Your task to perform on an android device: What's on my calendar tomorrow? Image 0: 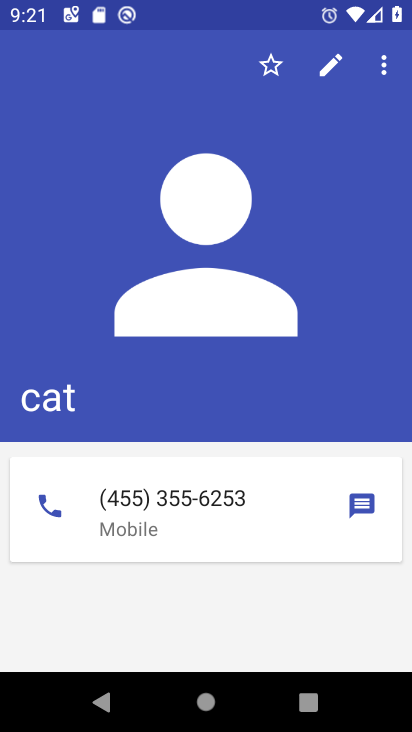
Step 0: press home button
Your task to perform on an android device: What's on my calendar tomorrow? Image 1: 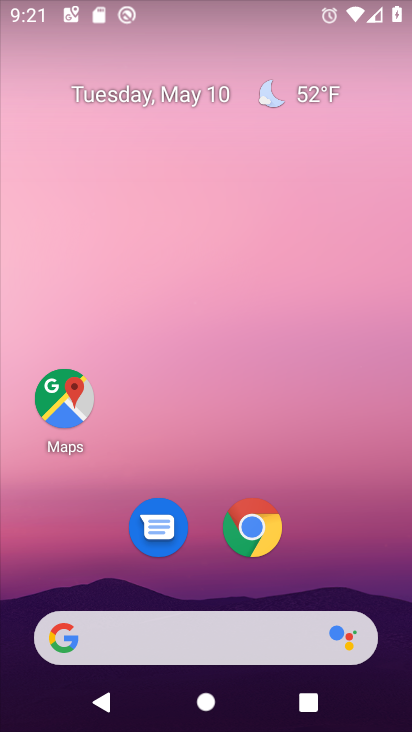
Step 1: drag from (363, 576) to (187, 129)
Your task to perform on an android device: What's on my calendar tomorrow? Image 2: 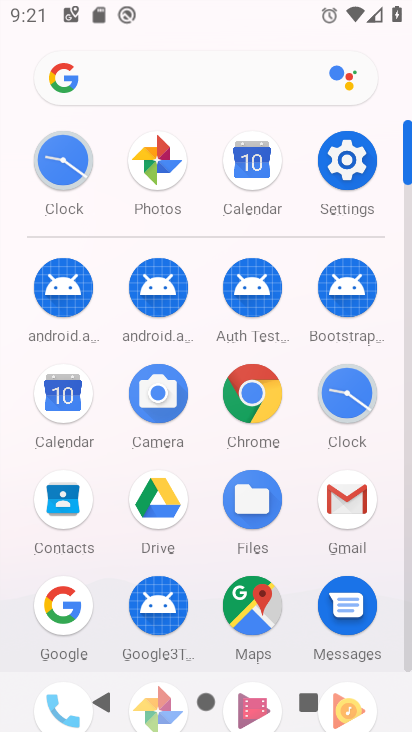
Step 2: click (63, 411)
Your task to perform on an android device: What's on my calendar tomorrow? Image 3: 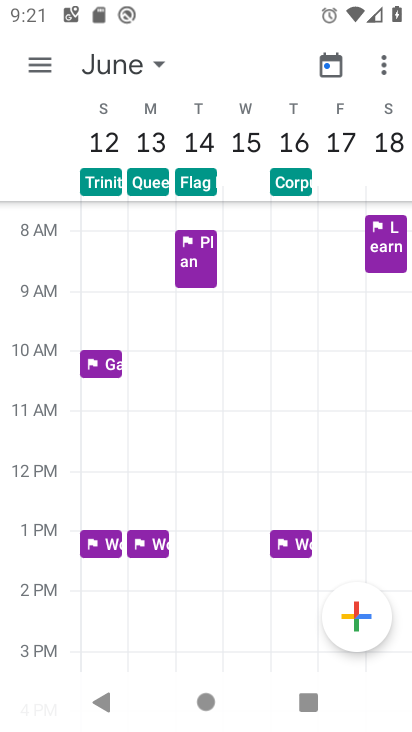
Step 3: click (138, 62)
Your task to perform on an android device: What's on my calendar tomorrow? Image 4: 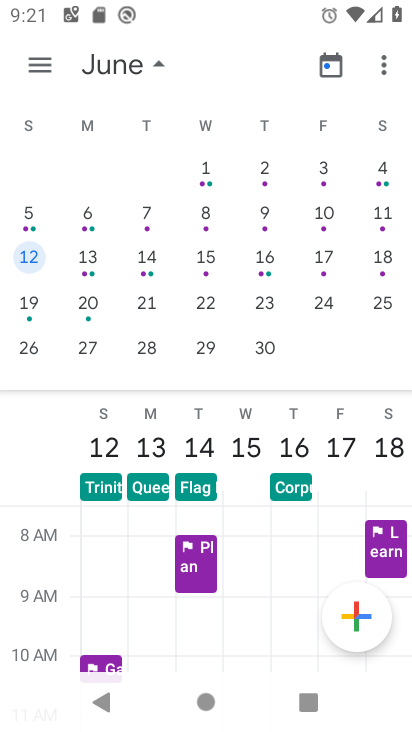
Step 4: drag from (27, 263) to (376, 272)
Your task to perform on an android device: What's on my calendar tomorrow? Image 5: 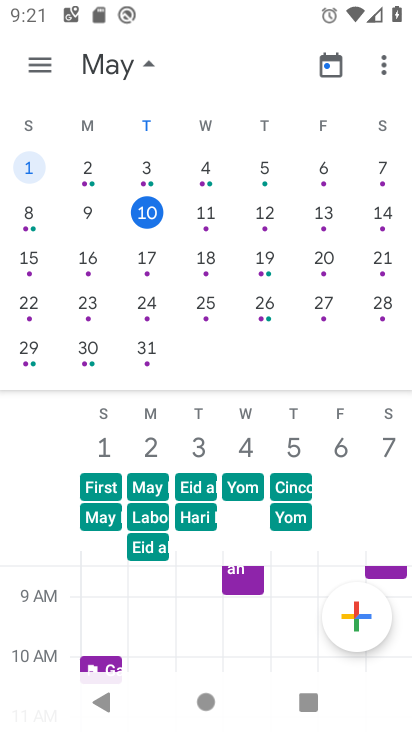
Step 5: click (202, 214)
Your task to perform on an android device: What's on my calendar tomorrow? Image 6: 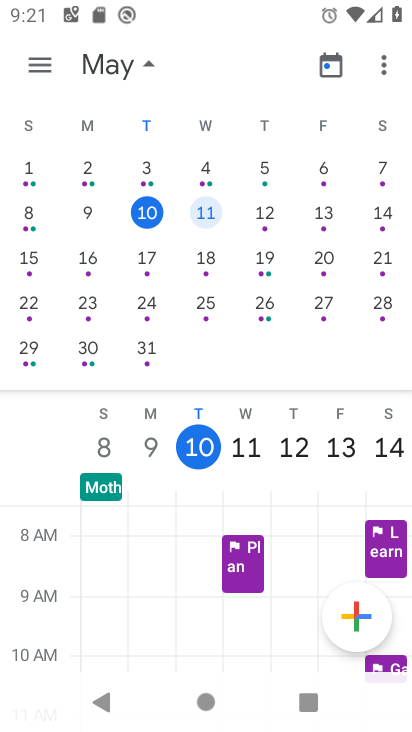
Step 6: click (203, 213)
Your task to perform on an android device: What's on my calendar tomorrow? Image 7: 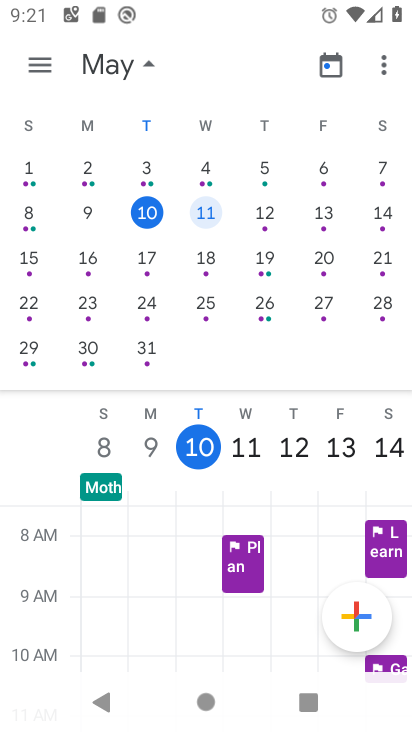
Step 7: click (43, 56)
Your task to perform on an android device: What's on my calendar tomorrow? Image 8: 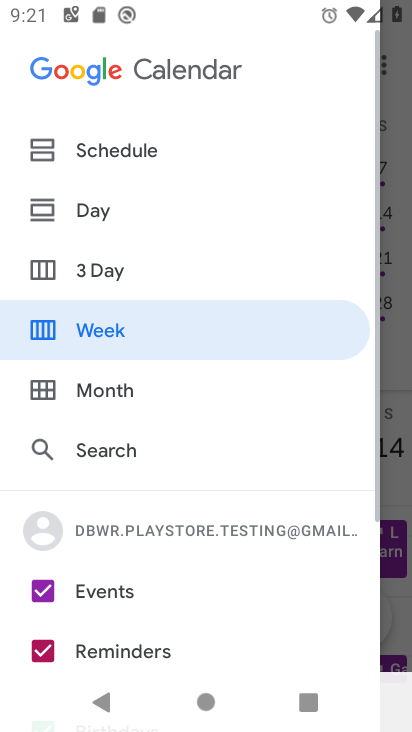
Step 8: click (65, 146)
Your task to perform on an android device: What's on my calendar tomorrow? Image 9: 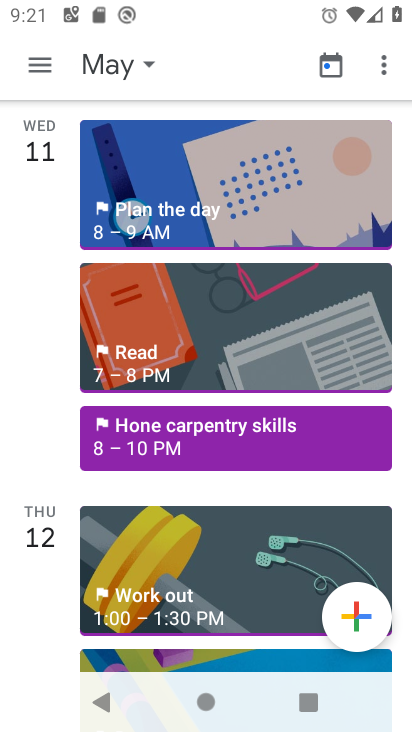
Step 9: task complete